Your task to perform on an android device: When is my next meeting? Image 0: 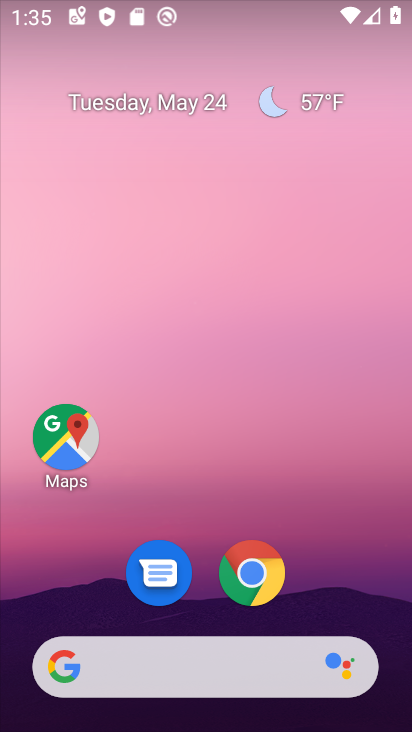
Step 0: drag from (329, 570) to (307, 44)
Your task to perform on an android device: When is my next meeting? Image 1: 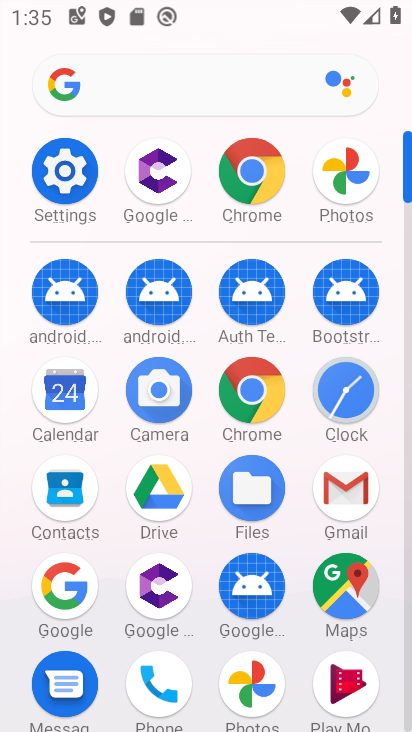
Step 1: click (251, 387)
Your task to perform on an android device: When is my next meeting? Image 2: 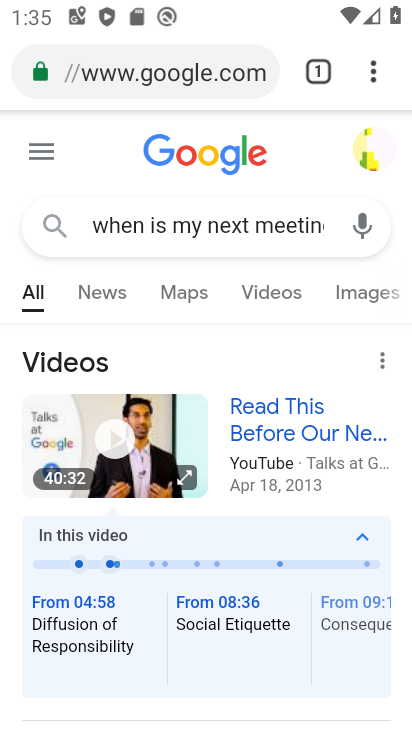
Step 2: click (170, 74)
Your task to perform on an android device: When is my next meeting? Image 3: 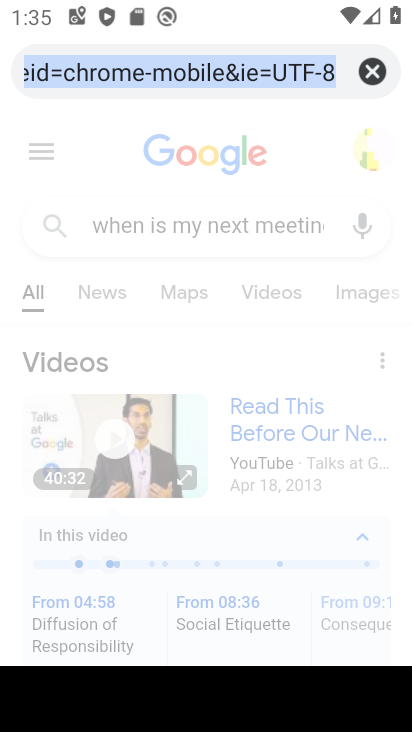
Step 3: click (377, 68)
Your task to perform on an android device: When is my next meeting? Image 4: 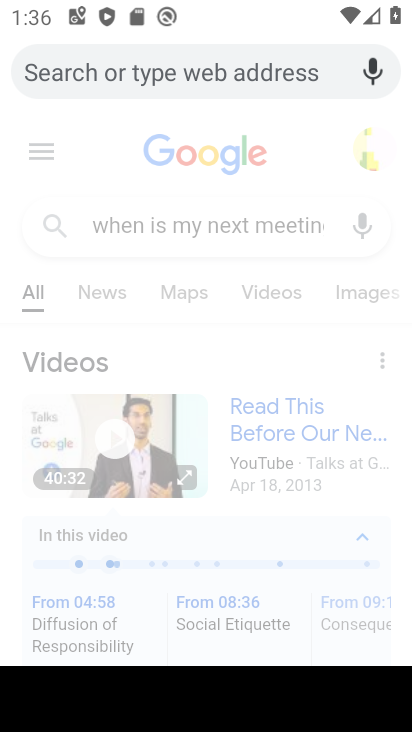
Step 4: type "when is my next meeting "
Your task to perform on an android device: When is my next meeting? Image 5: 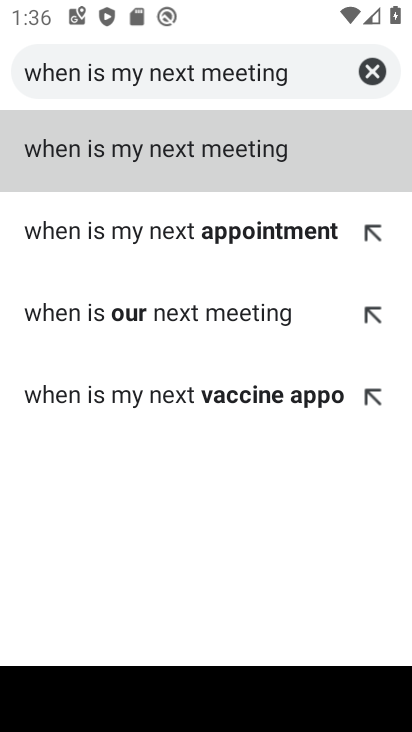
Step 5: click (216, 177)
Your task to perform on an android device: When is my next meeting? Image 6: 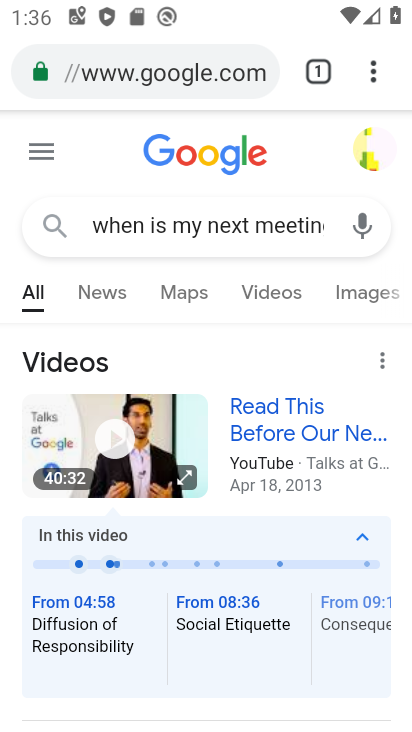
Step 6: task complete